Your task to perform on an android device: Turn off the flashlight Image 0: 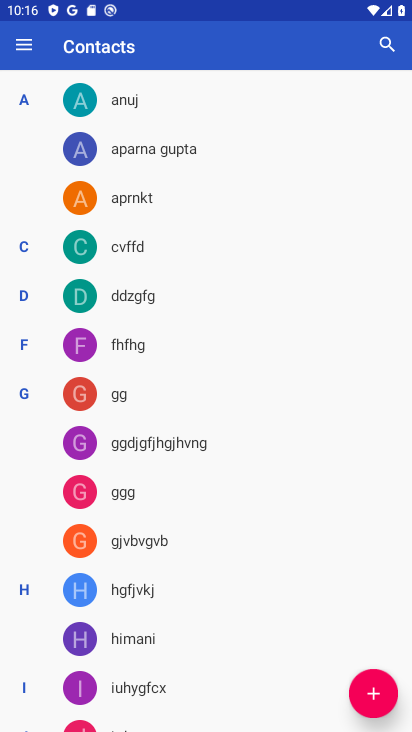
Step 0: drag from (230, 11) to (238, 677)
Your task to perform on an android device: Turn off the flashlight Image 1: 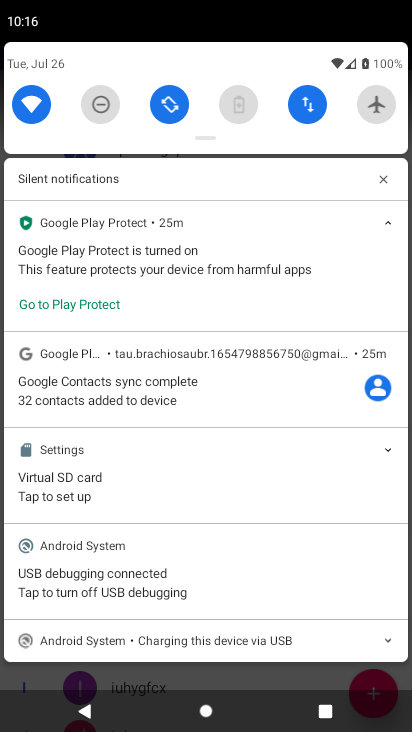
Step 1: task complete